Your task to perform on an android device: clear all cookies in the chrome app Image 0: 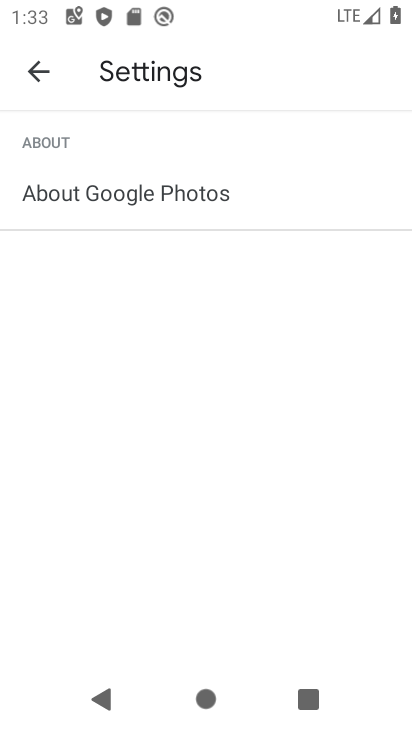
Step 0: press home button
Your task to perform on an android device: clear all cookies in the chrome app Image 1: 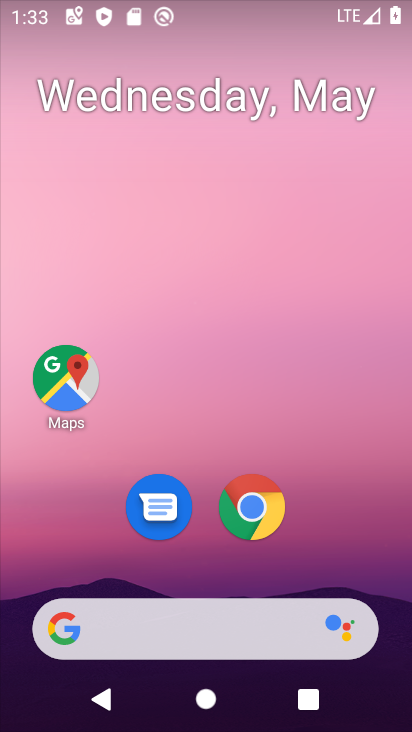
Step 1: click (262, 512)
Your task to perform on an android device: clear all cookies in the chrome app Image 2: 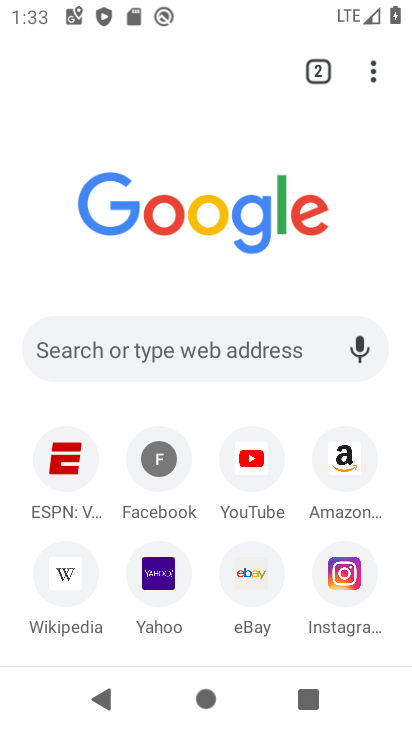
Step 2: click (369, 84)
Your task to perform on an android device: clear all cookies in the chrome app Image 3: 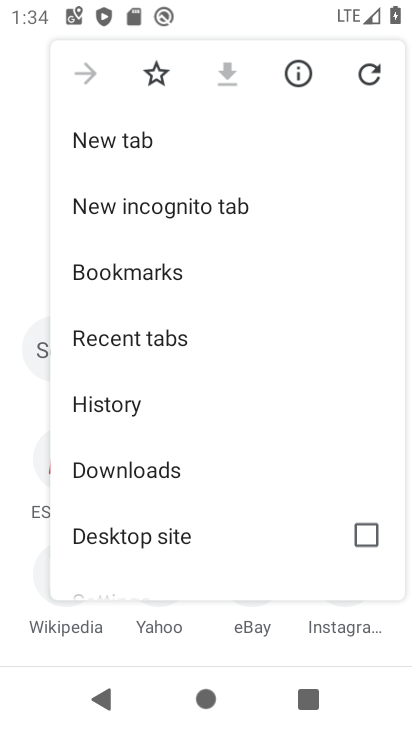
Step 3: click (170, 403)
Your task to perform on an android device: clear all cookies in the chrome app Image 4: 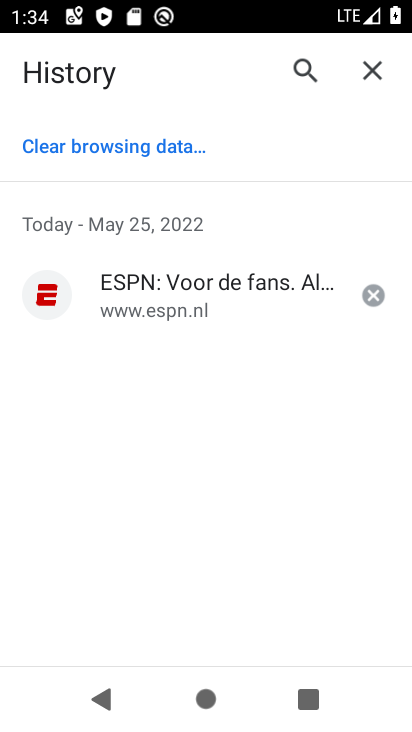
Step 4: click (149, 152)
Your task to perform on an android device: clear all cookies in the chrome app Image 5: 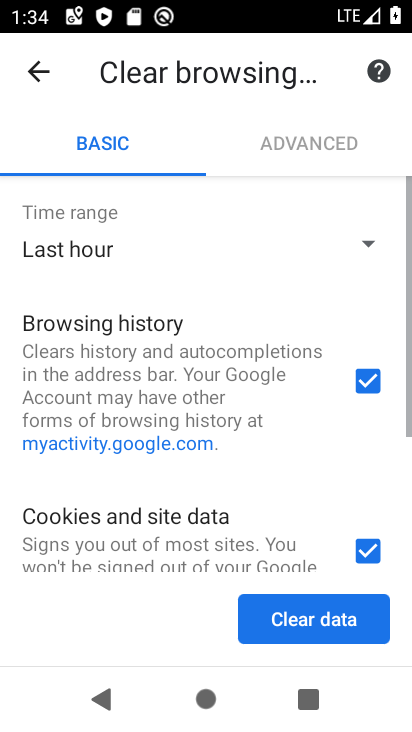
Step 5: click (378, 378)
Your task to perform on an android device: clear all cookies in the chrome app Image 6: 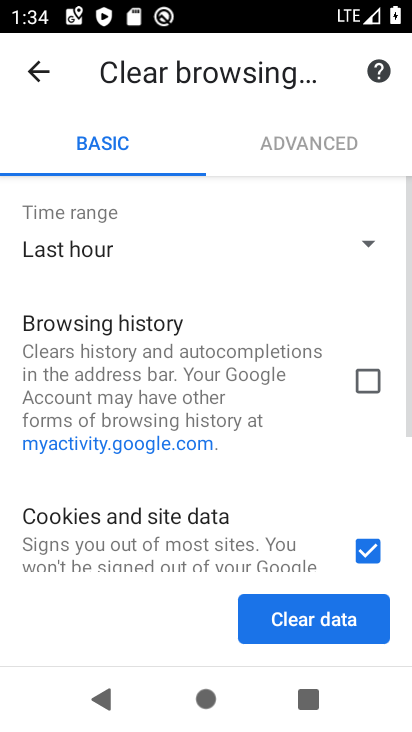
Step 6: click (332, 636)
Your task to perform on an android device: clear all cookies in the chrome app Image 7: 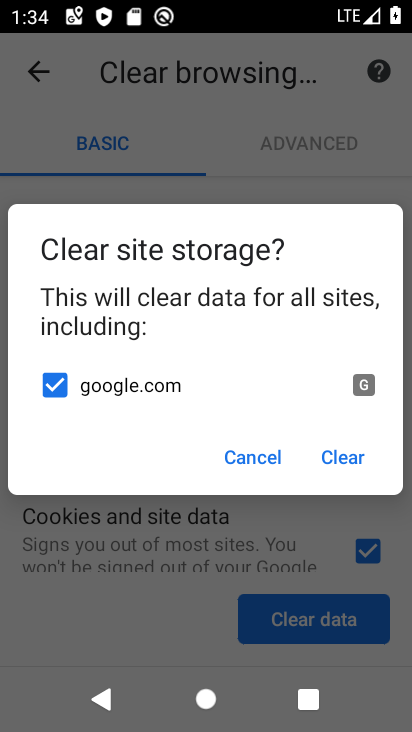
Step 7: click (339, 463)
Your task to perform on an android device: clear all cookies in the chrome app Image 8: 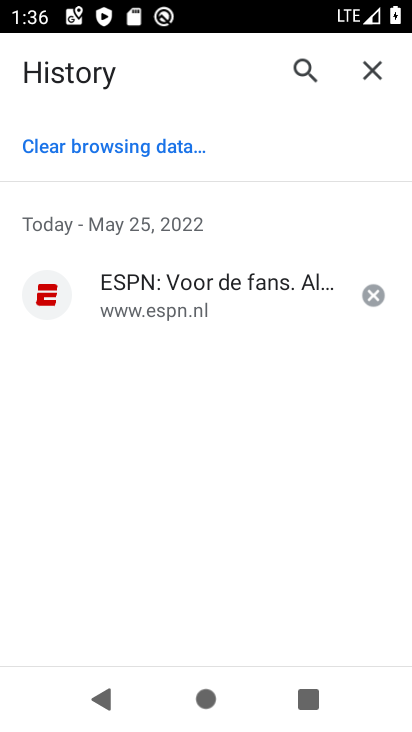
Step 8: click (164, 143)
Your task to perform on an android device: clear all cookies in the chrome app Image 9: 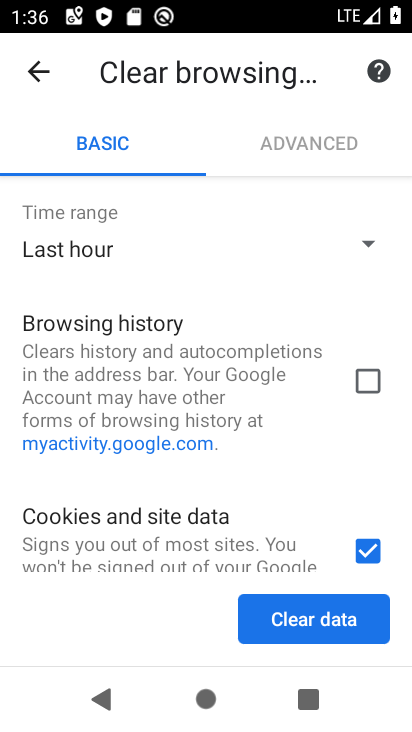
Step 9: click (341, 607)
Your task to perform on an android device: clear all cookies in the chrome app Image 10: 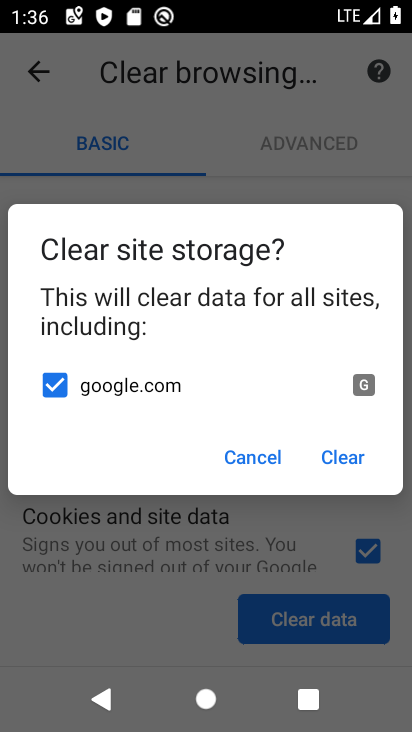
Step 10: click (354, 465)
Your task to perform on an android device: clear all cookies in the chrome app Image 11: 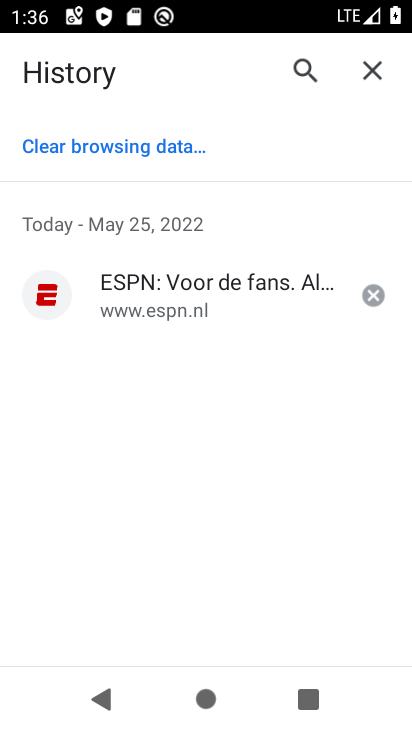
Step 11: task complete